Your task to perform on an android device: empty trash in google photos Image 0: 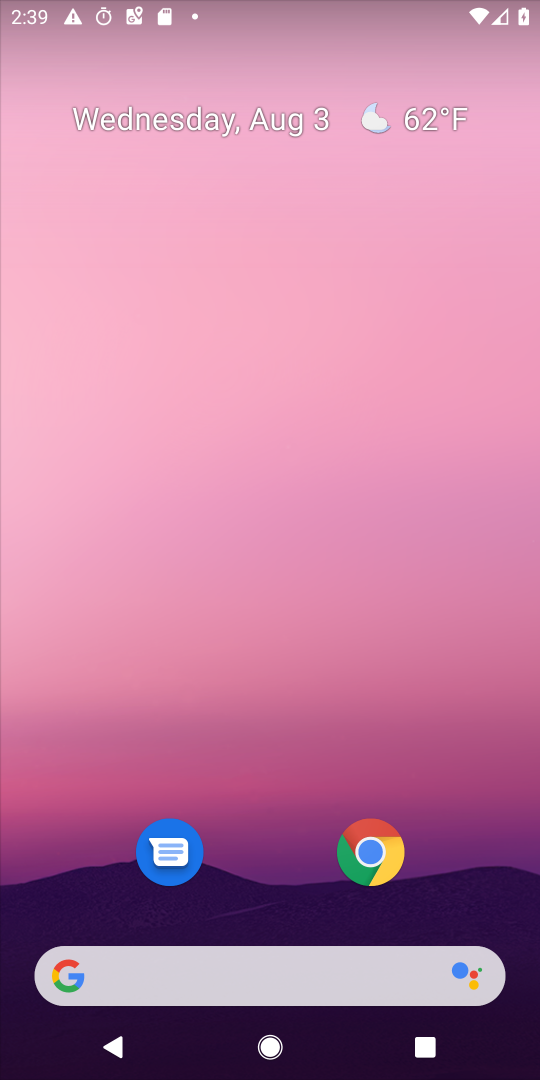
Step 0: drag from (447, 794) to (171, 58)
Your task to perform on an android device: empty trash in google photos Image 1: 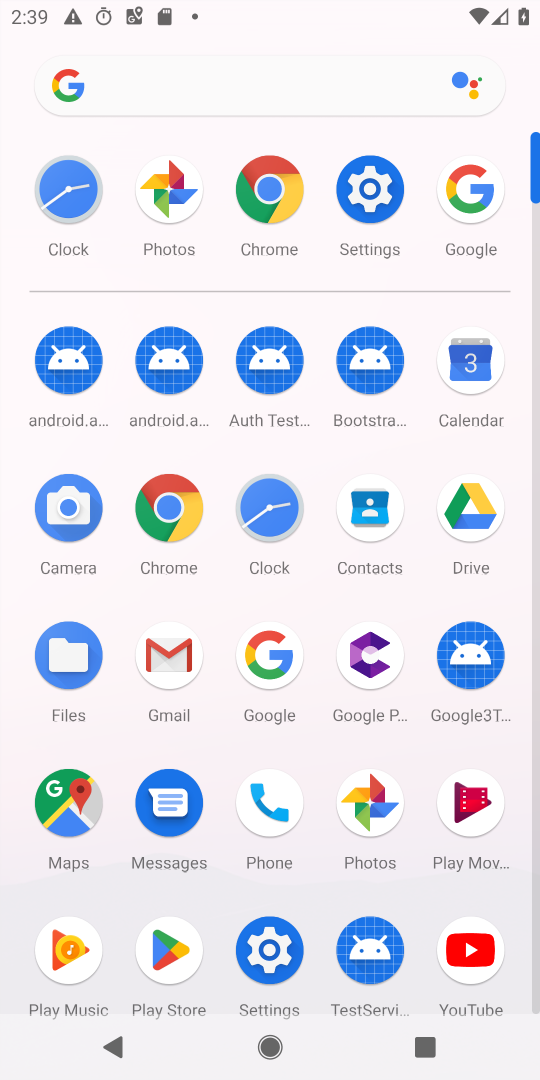
Step 1: click (375, 798)
Your task to perform on an android device: empty trash in google photos Image 2: 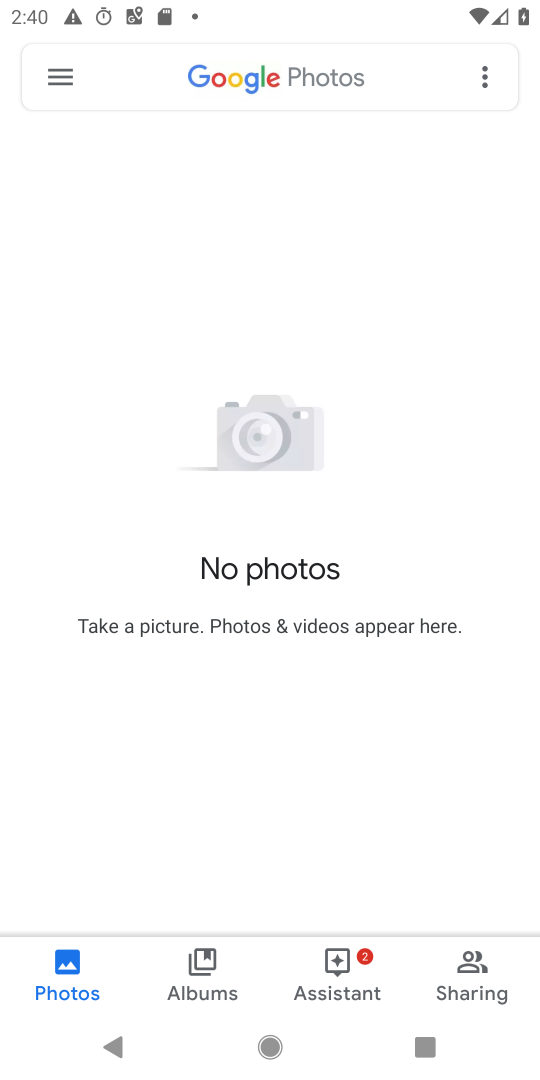
Step 2: click (58, 74)
Your task to perform on an android device: empty trash in google photos Image 3: 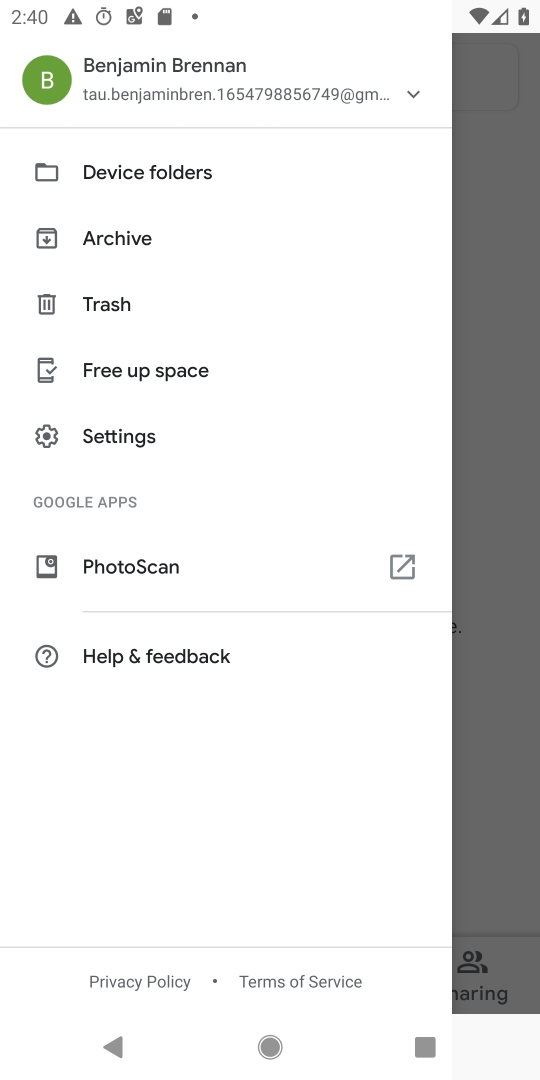
Step 3: click (104, 309)
Your task to perform on an android device: empty trash in google photos Image 4: 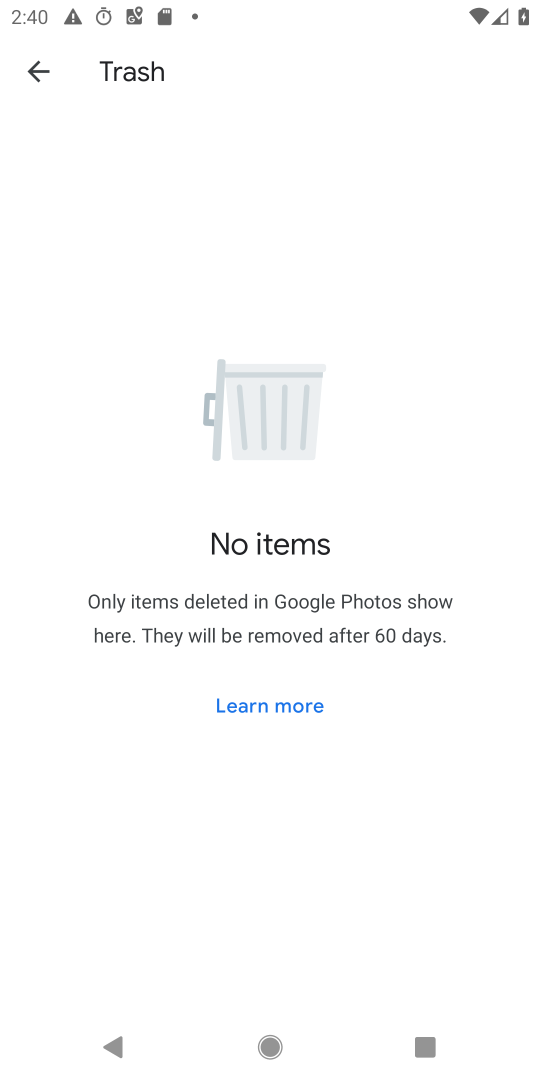
Step 4: task complete